Your task to perform on an android device: Open battery settings Image 0: 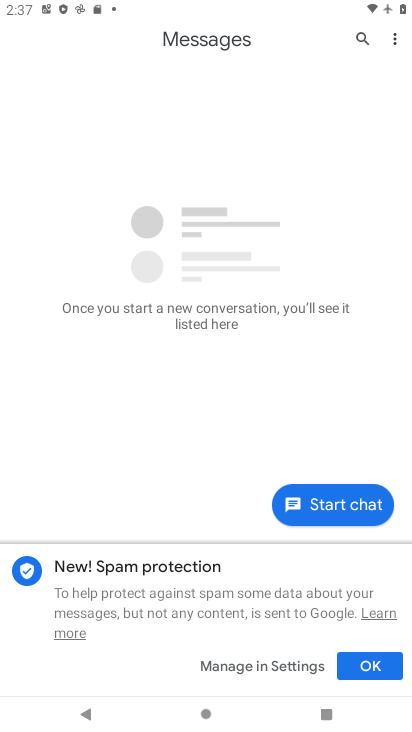
Step 0: press home button
Your task to perform on an android device: Open battery settings Image 1: 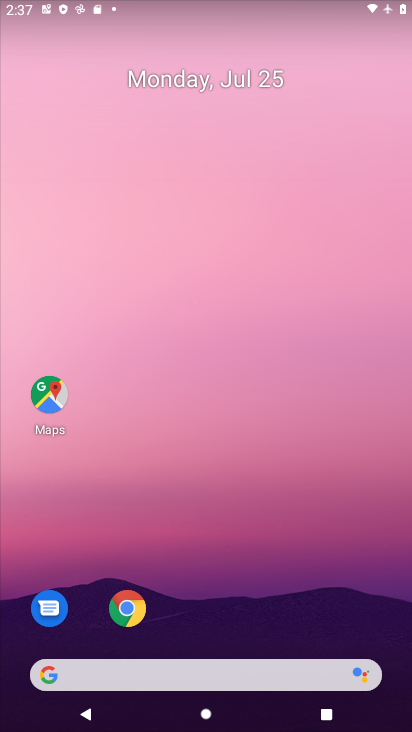
Step 1: drag from (245, 642) to (336, 88)
Your task to perform on an android device: Open battery settings Image 2: 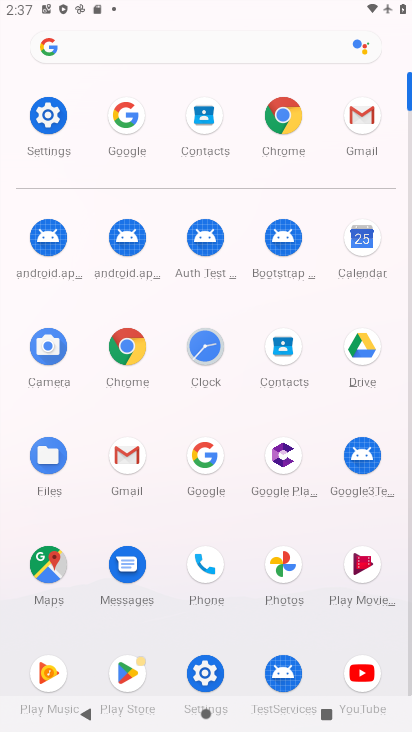
Step 2: click (62, 126)
Your task to perform on an android device: Open battery settings Image 3: 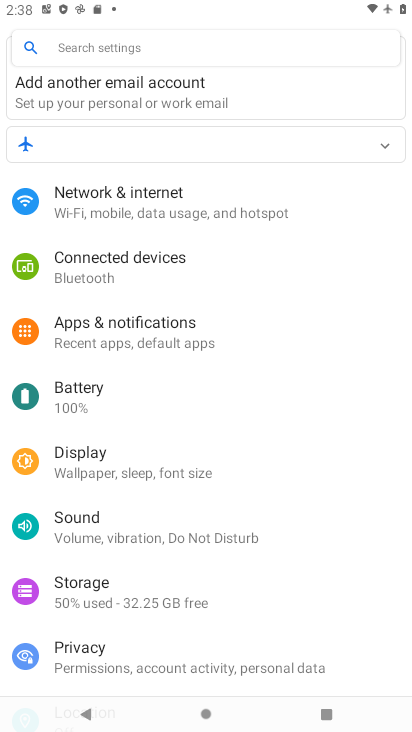
Step 3: click (135, 401)
Your task to perform on an android device: Open battery settings Image 4: 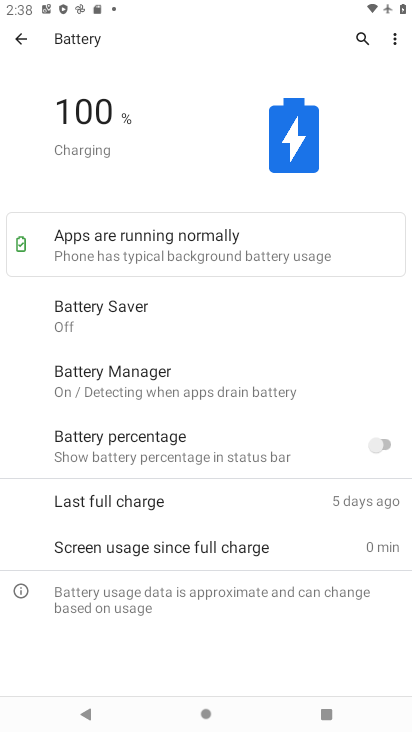
Step 4: task complete